Your task to perform on an android device: Open the contacts Image 0: 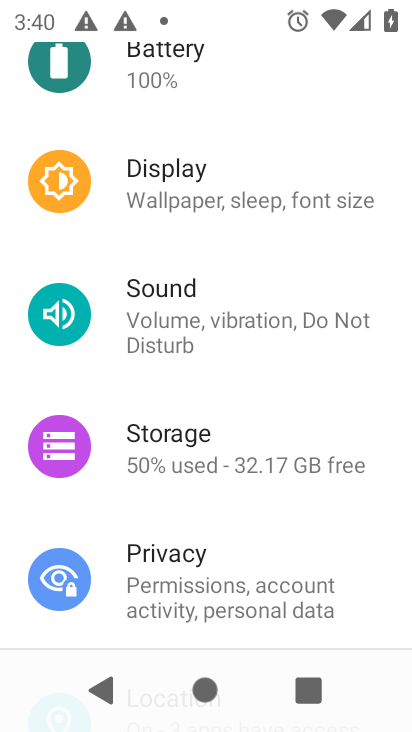
Step 0: press home button
Your task to perform on an android device: Open the contacts Image 1: 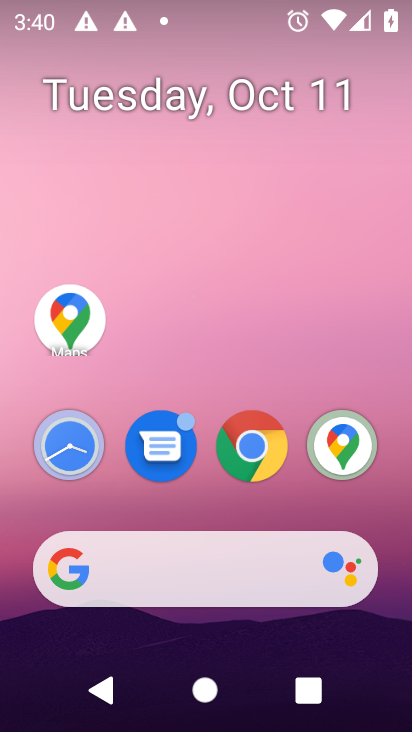
Step 1: drag from (299, 476) to (299, 46)
Your task to perform on an android device: Open the contacts Image 2: 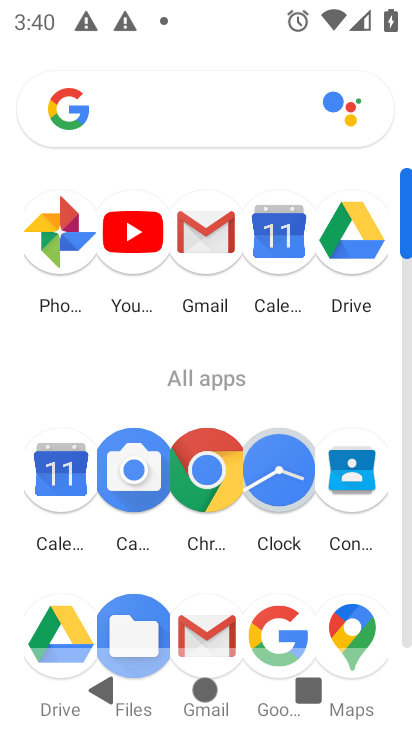
Step 2: click (352, 482)
Your task to perform on an android device: Open the contacts Image 3: 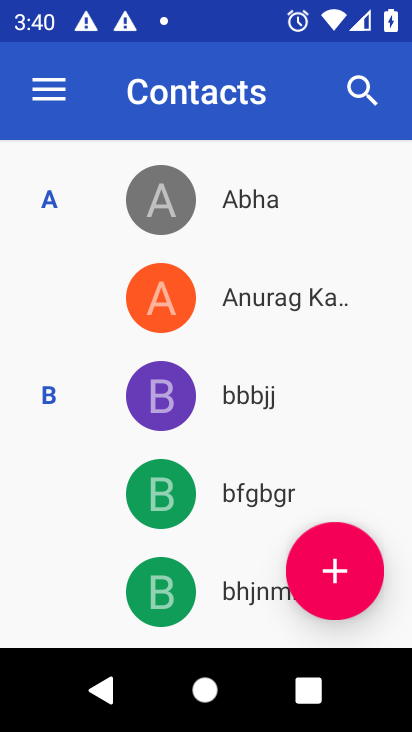
Step 3: task complete